Your task to perform on an android device: turn on translation in the chrome app Image 0: 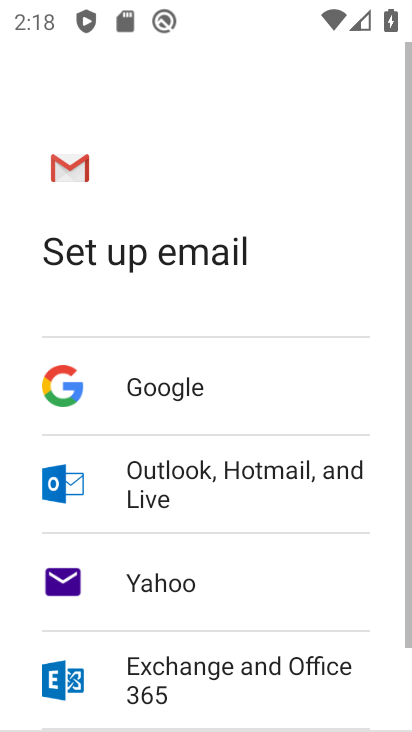
Step 0: press home button
Your task to perform on an android device: turn on translation in the chrome app Image 1: 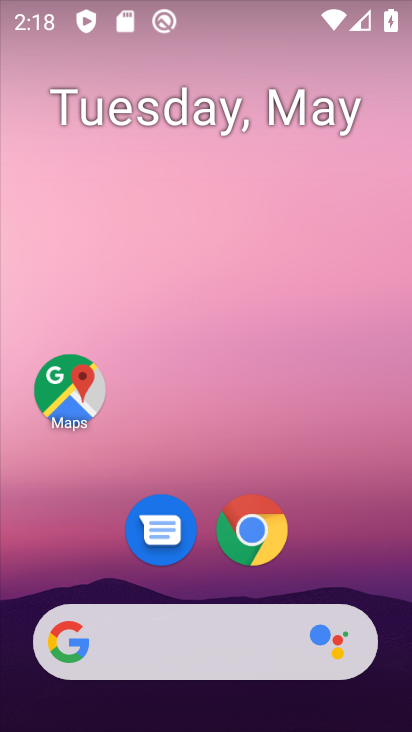
Step 1: click (248, 533)
Your task to perform on an android device: turn on translation in the chrome app Image 2: 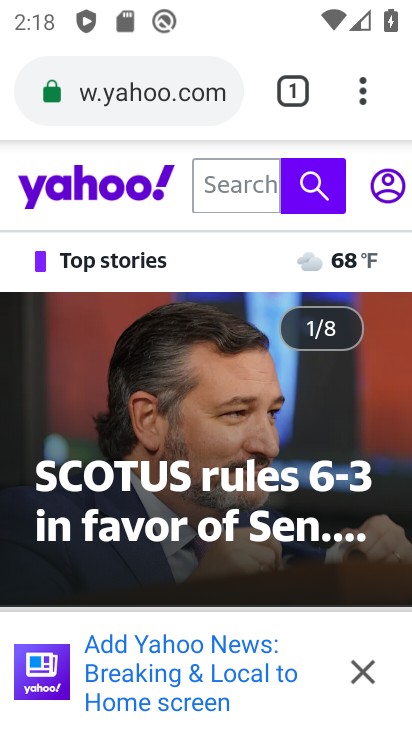
Step 2: click (356, 101)
Your task to perform on an android device: turn on translation in the chrome app Image 3: 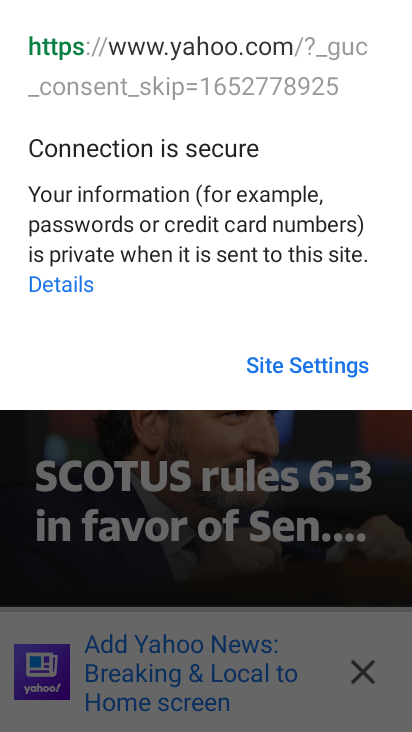
Step 3: click (340, 598)
Your task to perform on an android device: turn on translation in the chrome app Image 4: 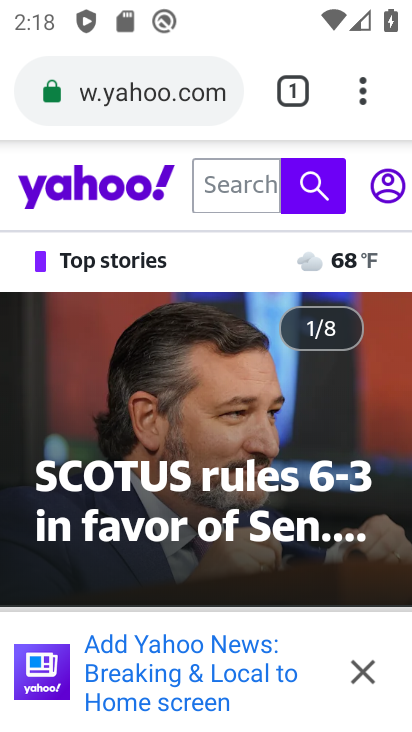
Step 4: drag from (362, 78) to (98, 555)
Your task to perform on an android device: turn on translation in the chrome app Image 5: 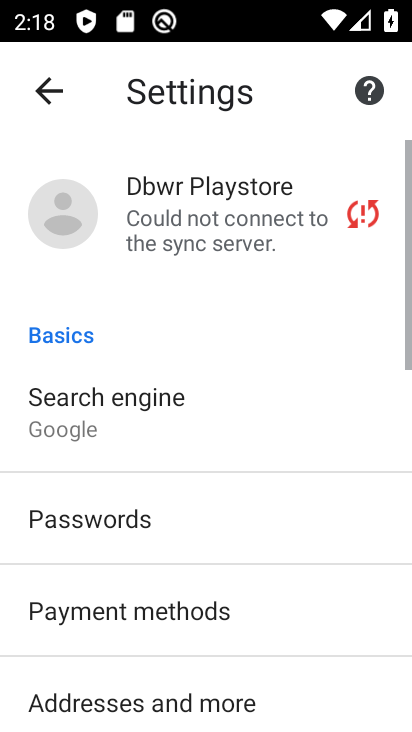
Step 5: drag from (189, 519) to (270, 237)
Your task to perform on an android device: turn on translation in the chrome app Image 6: 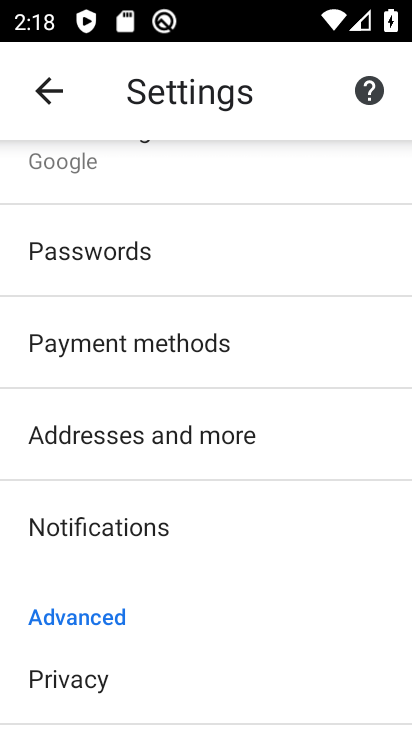
Step 6: drag from (195, 570) to (231, 295)
Your task to perform on an android device: turn on translation in the chrome app Image 7: 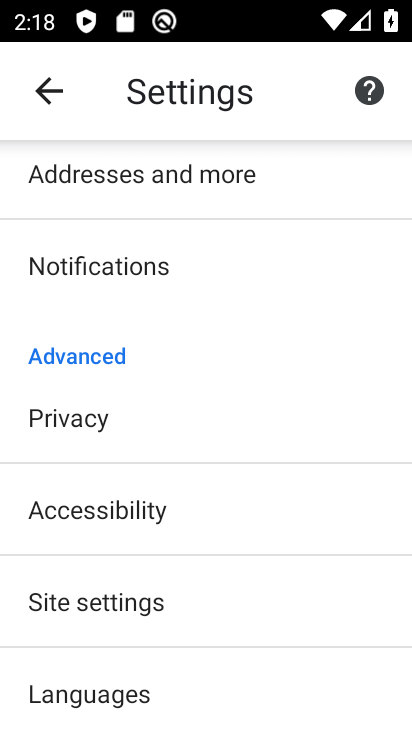
Step 7: drag from (205, 426) to (317, 258)
Your task to perform on an android device: turn on translation in the chrome app Image 8: 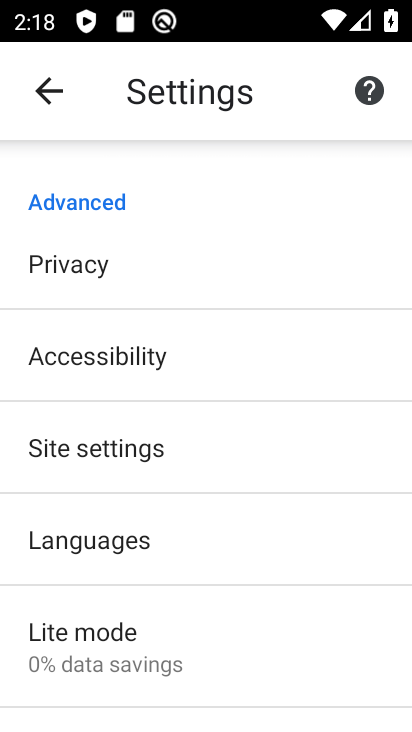
Step 8: click (162, 549)
Your task to perform on an android device: turn on translation in the chrome app Image 9: 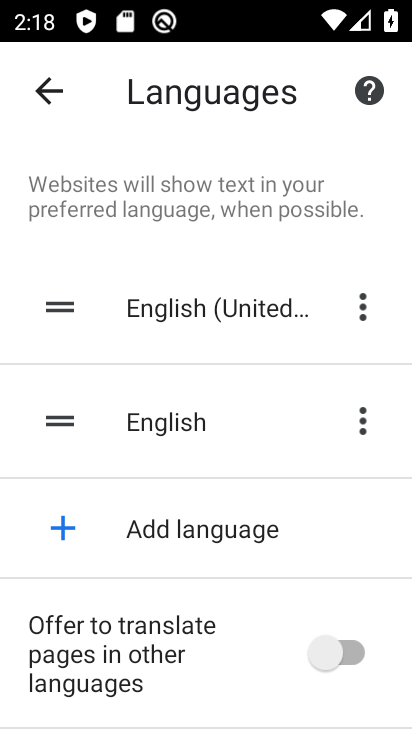
Step 9: click (359, 666)
Your task to perform on an android device: turn on translation in the chrome app Image 10: 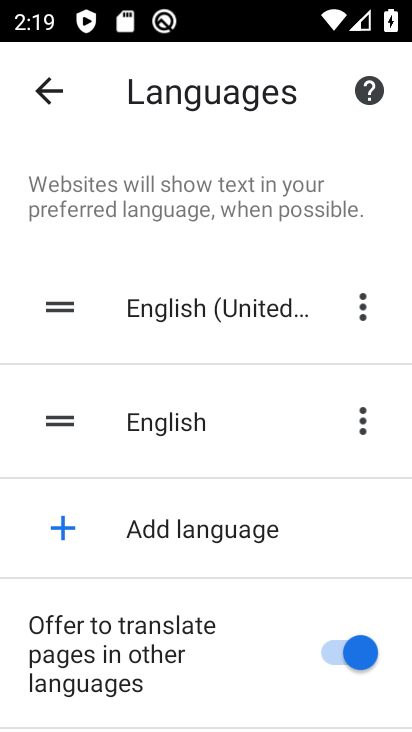
Step 10: task complete